Your task to perform on an android device: delete a single message in the gmail app Image 0: 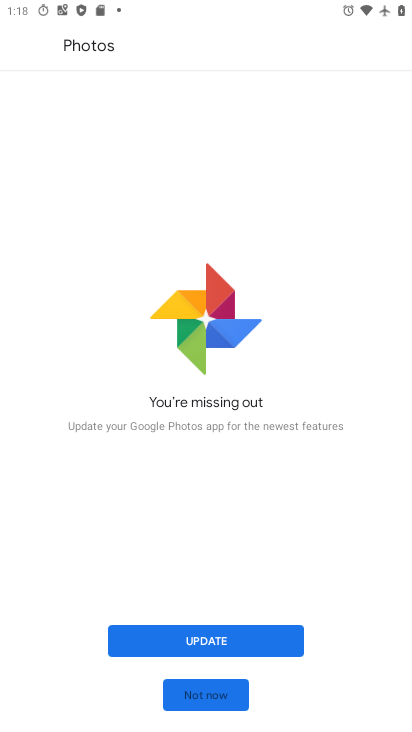
Step 0: press home button
Your task to perform on an android device: delete a single message in the gmail app Image 1: 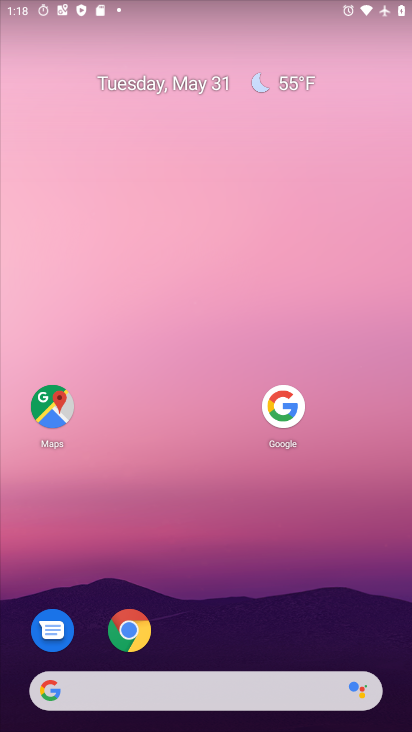
Step 1: drag from (187, 689) to (305, 190)
Your task to perform on an android device: delete a single message in the gmail app Image 2: 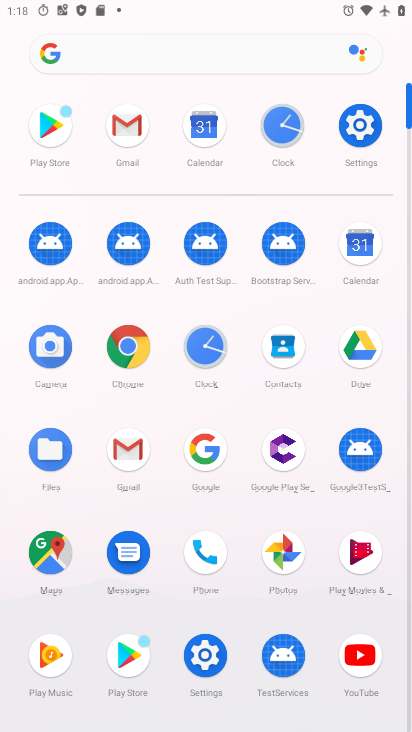
Step 2: click (122, 133)
Your task to perform on an android device: delete a single message in the gmail app Image 3: 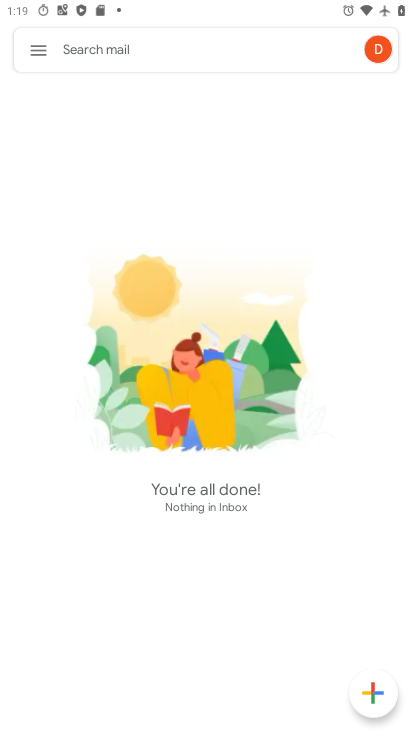
Step 3: task complete